Your task to perform on an android device: check android version Image 0: 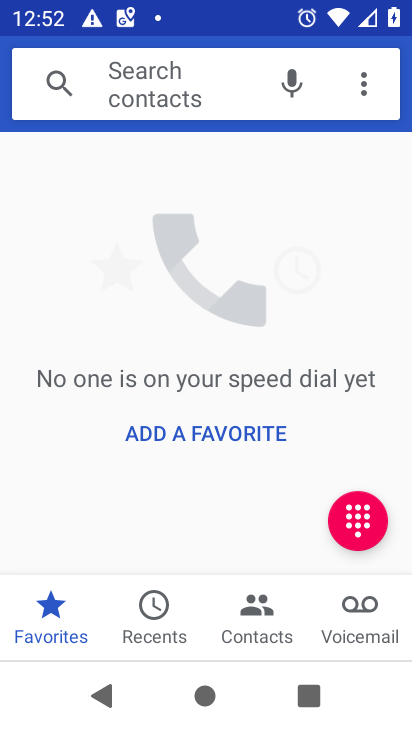
Step 0: press back button
Your task to perform on an android device: check android version Image 1: 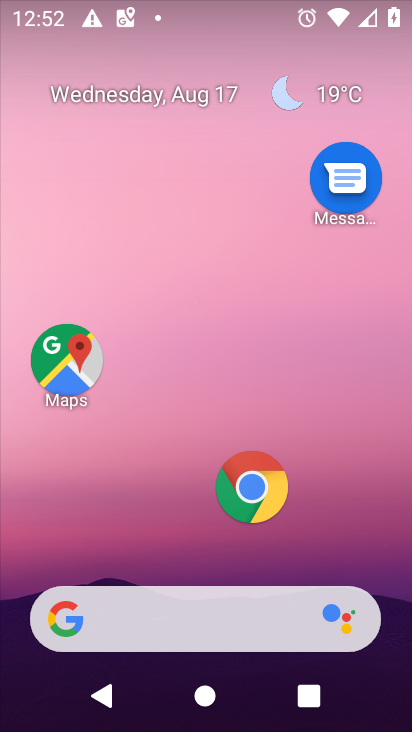
Step 1: drag from (107, 552) to (263, 6)
Your task to perform on an android device: check android version Image 2: 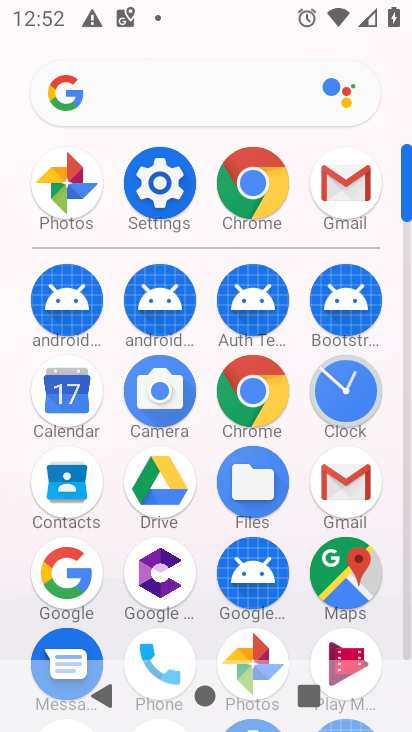
Step 2: click (166, 175)
Your task to perform on an android device: check android version Image 3: 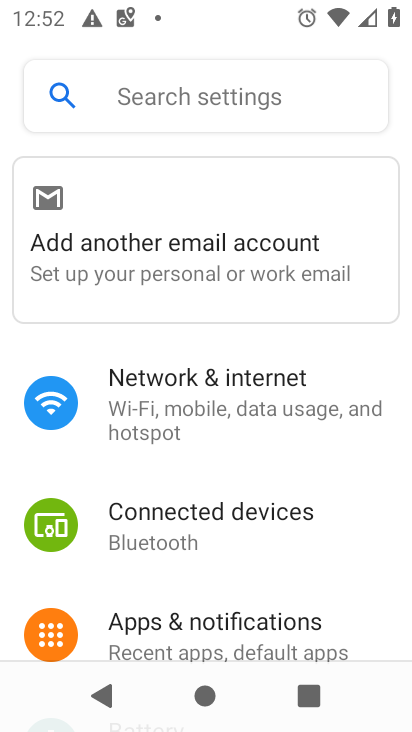
Step 3: drag from (199, 585) to (221, 5)
Your task to perform on an android device: check android version Image 4: 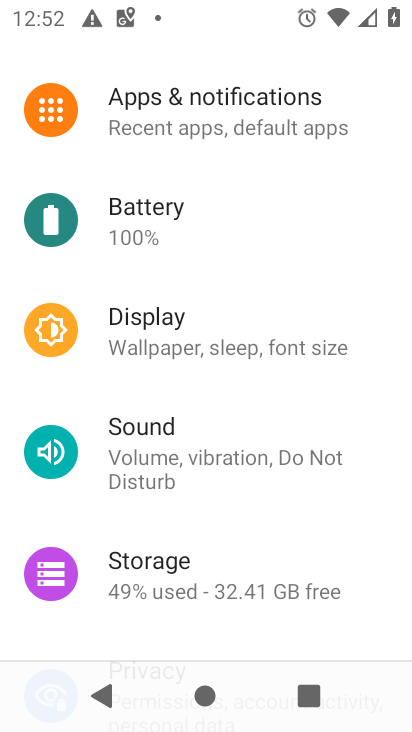
Step 4: drag from (189, 595) to (269, 2)
Your task to perform on an android device: check android version Image 5: 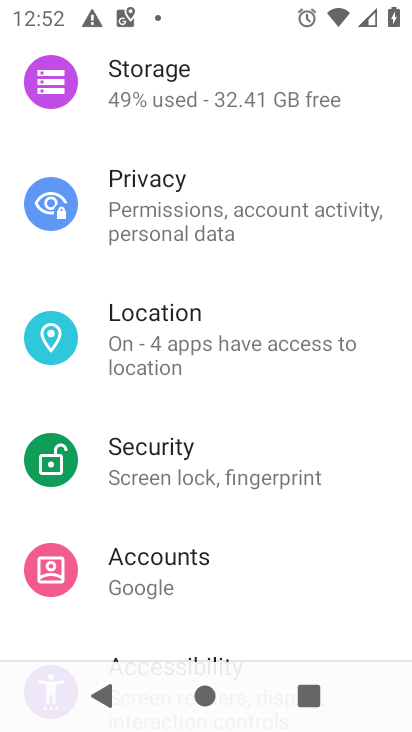
Step 5: drag from (175, 591) to (22, 166)
Your task to perform on an android device: check android version Image 6: 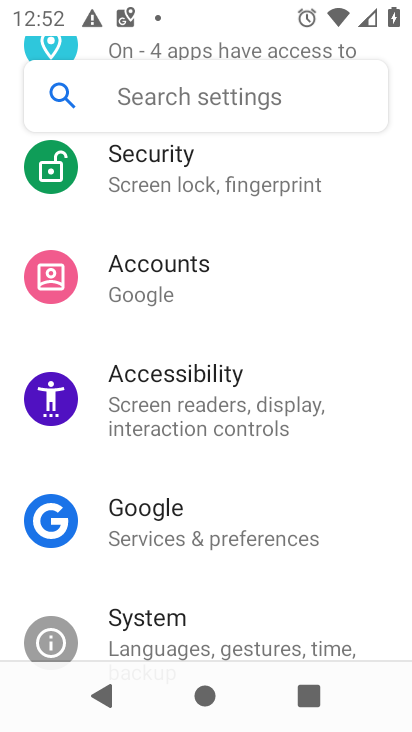
Step 6: drag from (181, 612) to (350, 47)
Your task to perform on an android device: check android version Image 7: 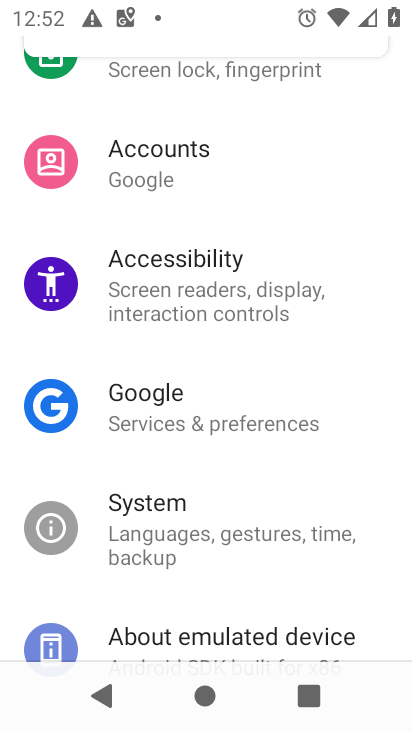
Step 7: click (188, 627)
Your task to perform on an android device: check android version Image 8: 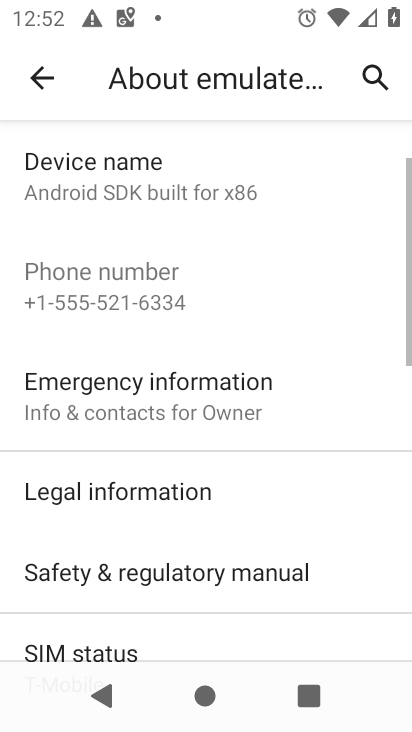
Step 8: drag from (193, 617) to (273, 10)
Your task to perform on an android device: check android version Image 9: 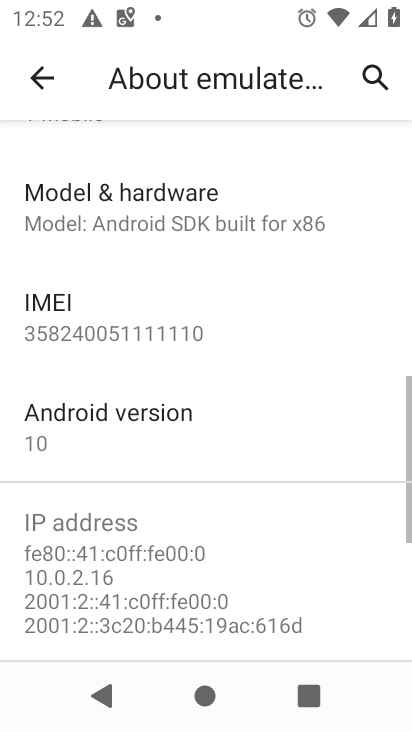
Step 9: click (151, 417)
Your task to perform on an android device: check android version Image 10: 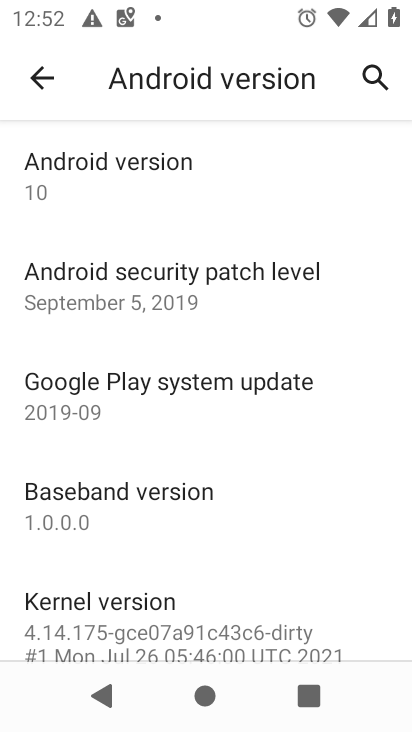
Step 10: task complete